Your task to perform on an android device: What's the time in New York? Image 0: 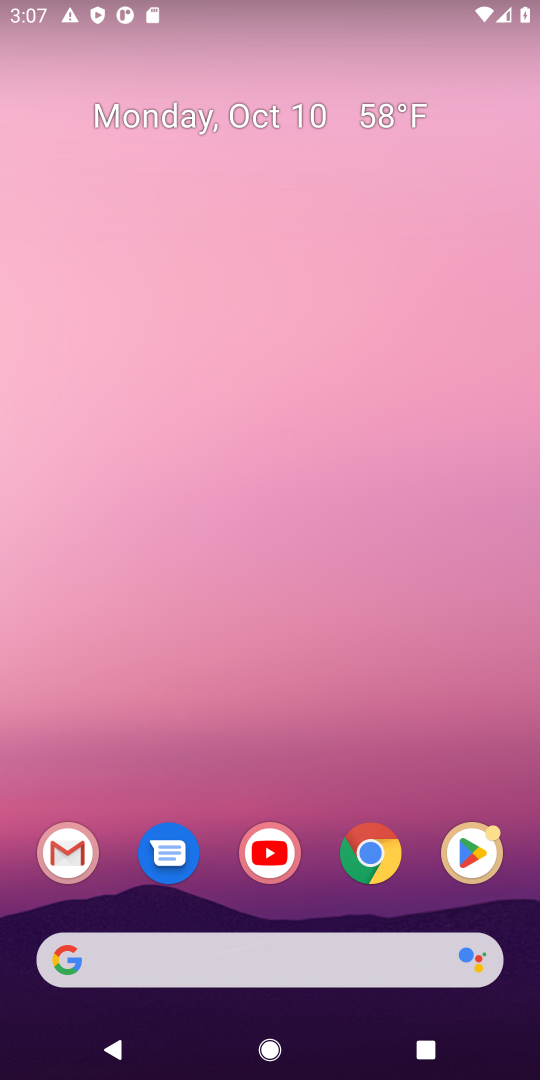
Step 0: click (227, 956)
Your task to perform on an android device: What's the time in New York? Image 1: 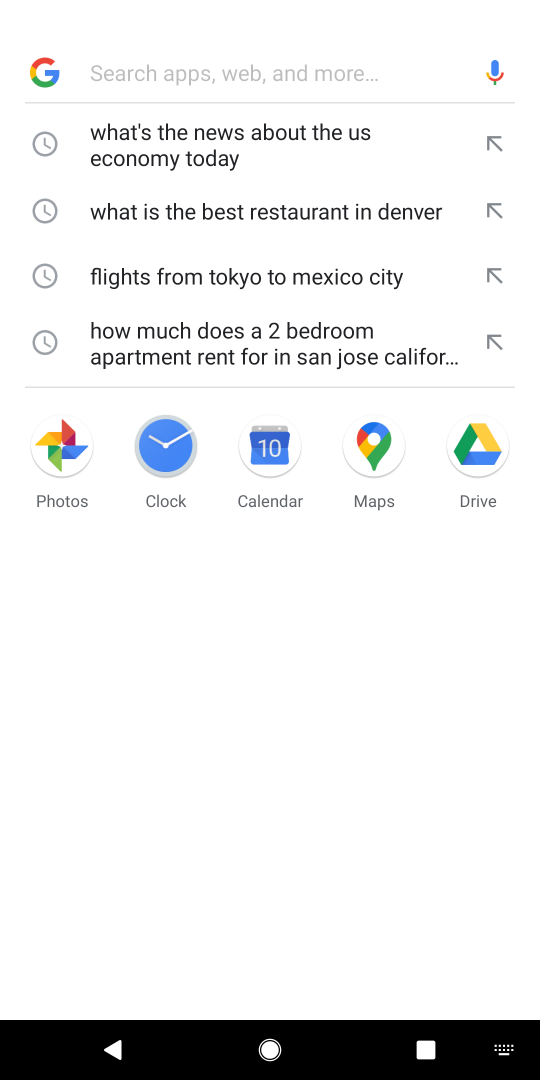
Step 1: click (219, 60)
Your task to perform on an android device: What's the time in New York? Image 2: 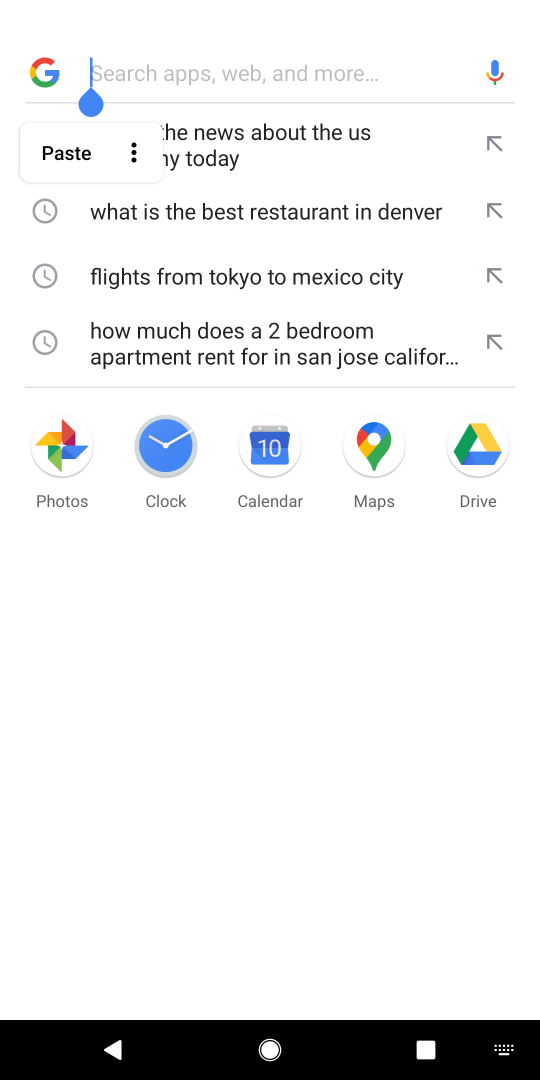
Step 2: type "What's the time in New York?"
Your task to perform on an android device: What's the time in New York? Image 3: 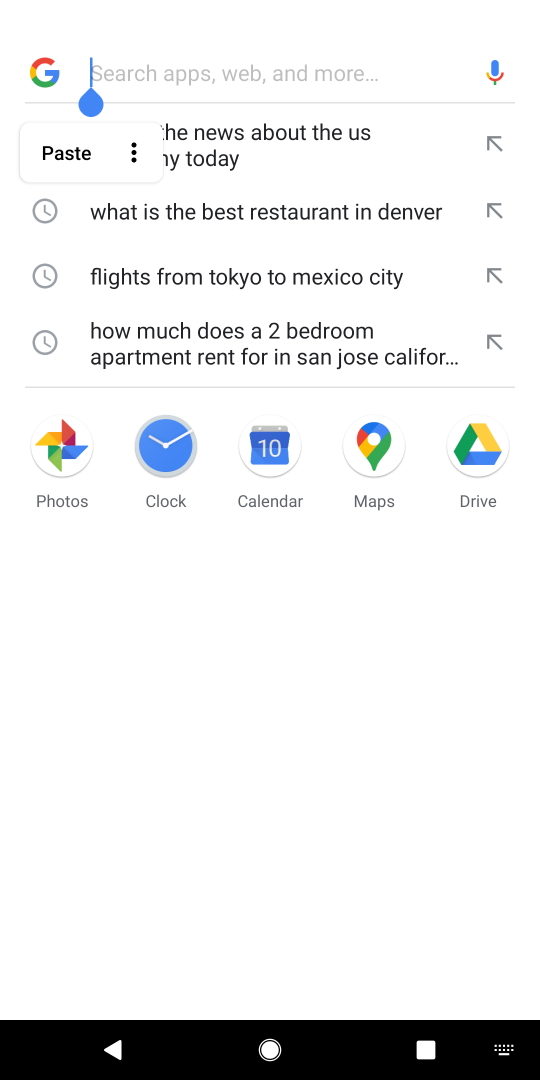
Step 3: click (175, 881)
Your task to perform on an android device: What's the time in New York? Image 4: 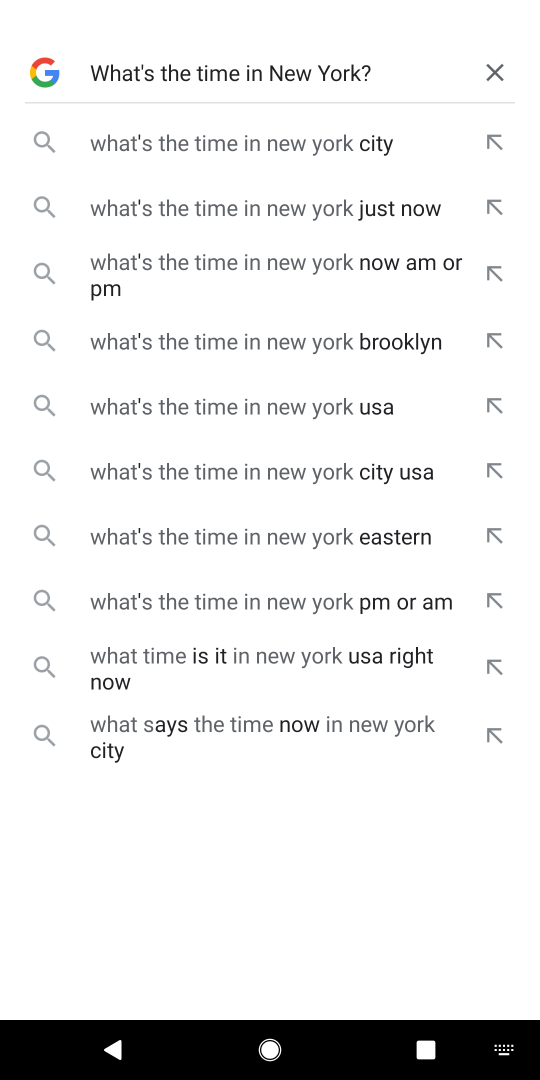
Step 4: click (281, 148)
Your task to perform on an android device: What's the time in New York? Image 5: 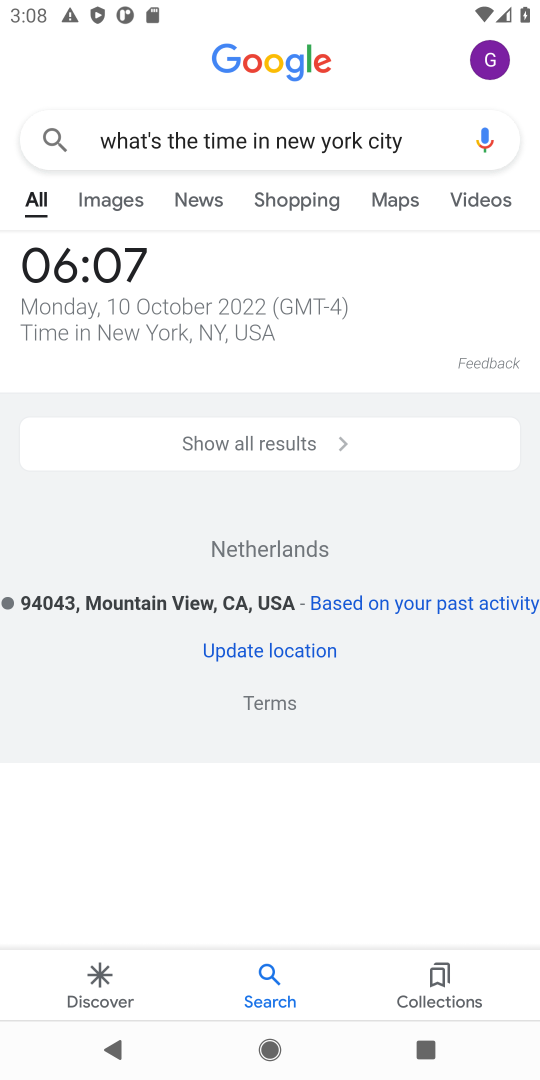
Step 5: task complete